Your task to perform on an android device: turn off priority inbox in the gmail app Image 0: 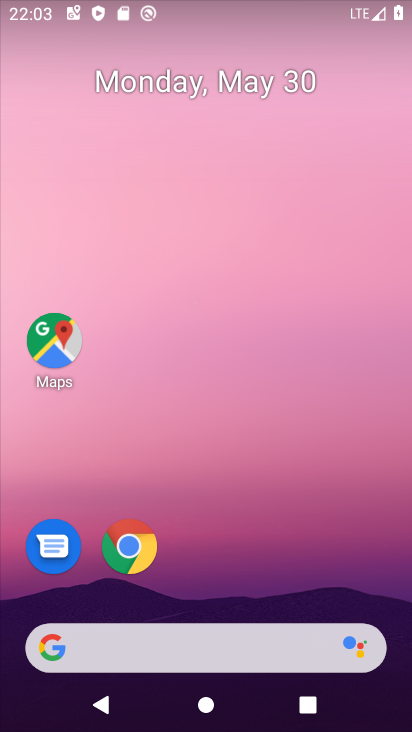
Step 0: drag from (341, 585) to (298, 0)
Your task to perform on an android device: turn off priority inbox in the gmail app Image 1: 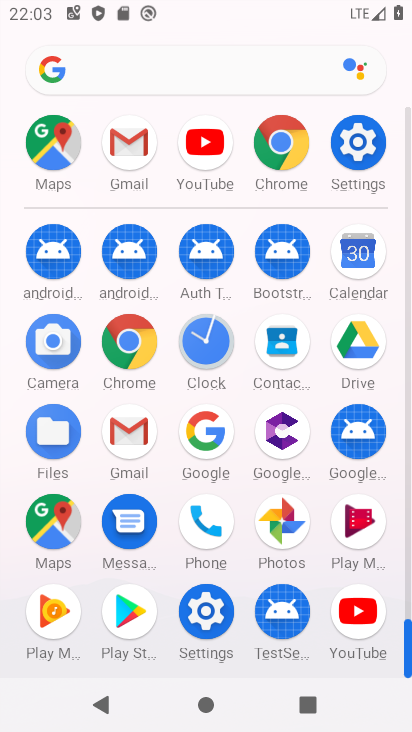
Step 1: click (126, 436)
Your task to perform on an android device: turn off priority inbox in the gmail app Image 2: 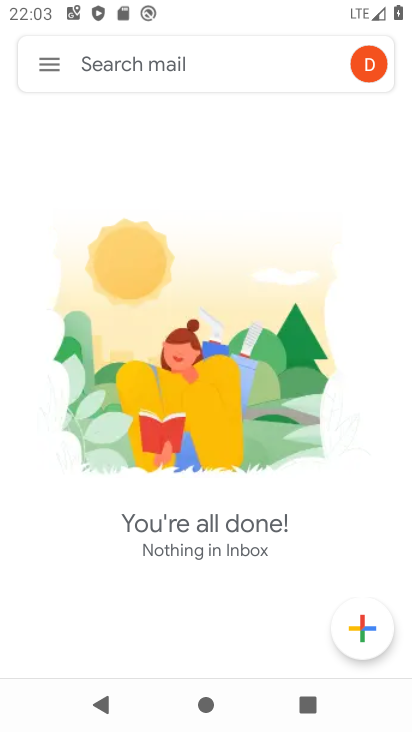
Step 2: click (55, 70)
Your task to perform on an android device: turn off priority inbox in the gmail app Image 3: 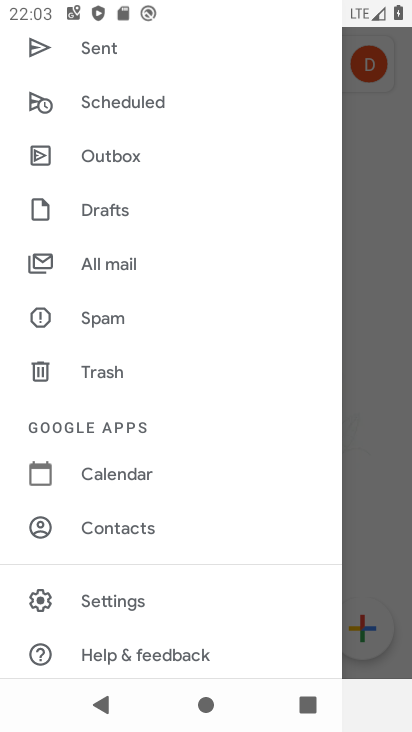
Step 3: click (166, 605)
Your task to perform on an android device: turn off priority inbox in the gmail app Image 4: 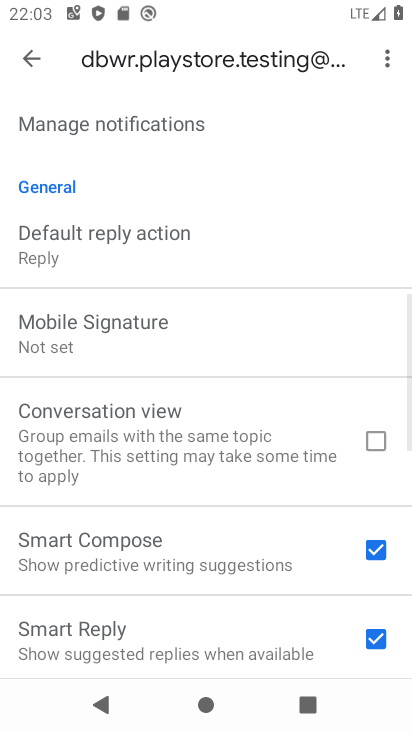
Step 4: drag from (126, 224) to (135, 621)
Your task to perform on an android device: turn off priority inbox in the gmail app Image 5: 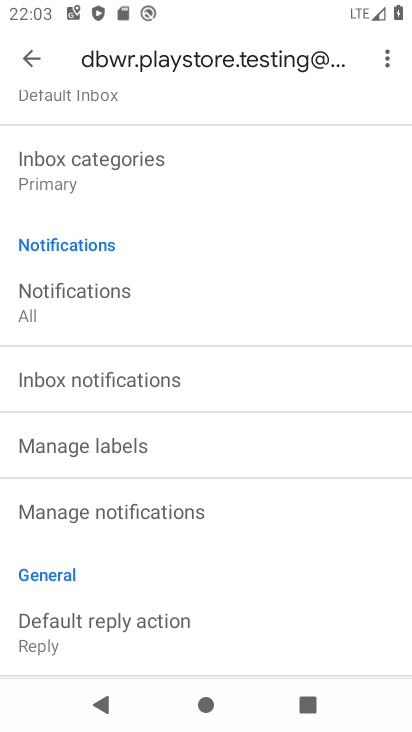
Step 5: drag from (122, 250) to (120, 467)
Your task to perform on an android device: turn off priority inbox in the gmail app Image 6: 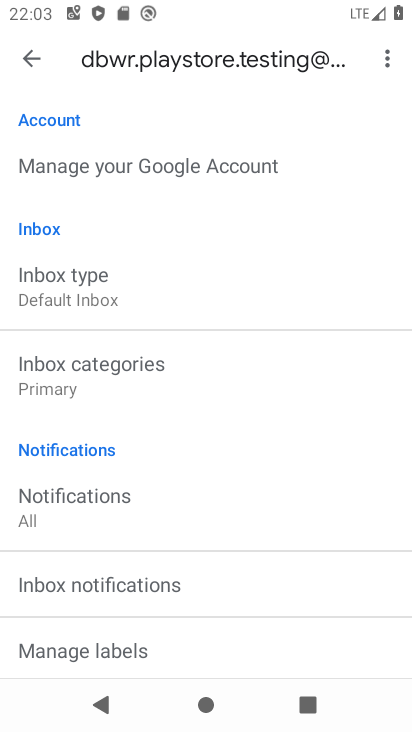
Step 6: click (78, 296)
Your task to perform on an android device: turn off priority inbox in the gmail app Image 7: 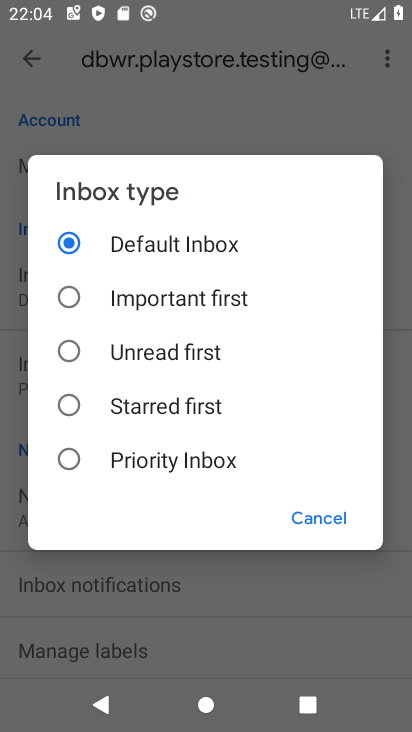
Step 7: task complete